Your task to perform on an android device: turn off data saver in the chrome app Image 0: 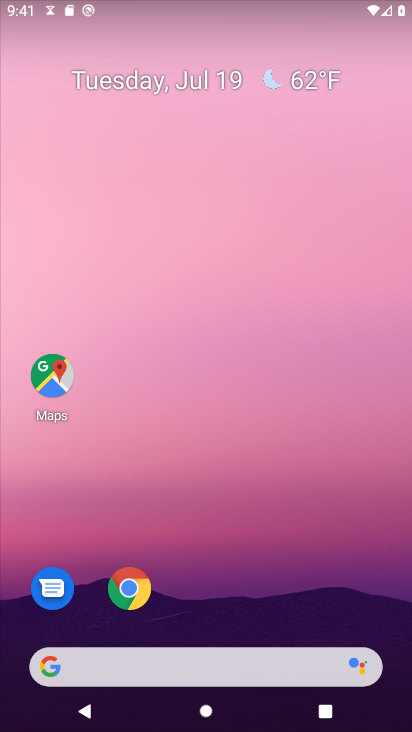
Step 0: click (117, 594)
Your task to perform on an android device: turn off data saver in the chrome app Image 1: 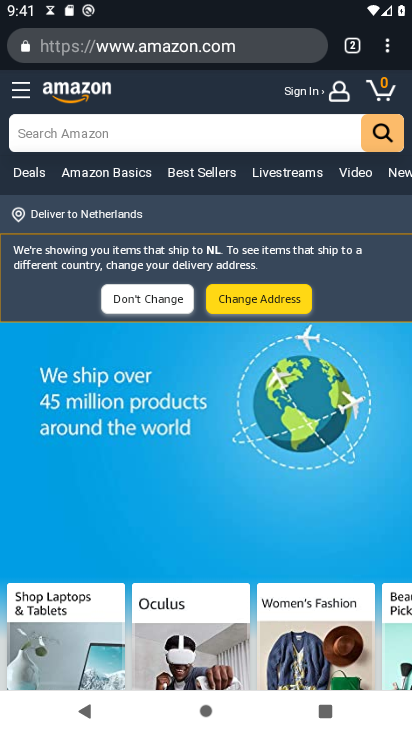
Step 1: click (386, 47)
Your task to perform on an android device: turn off data saver in the chrome app Image 2: 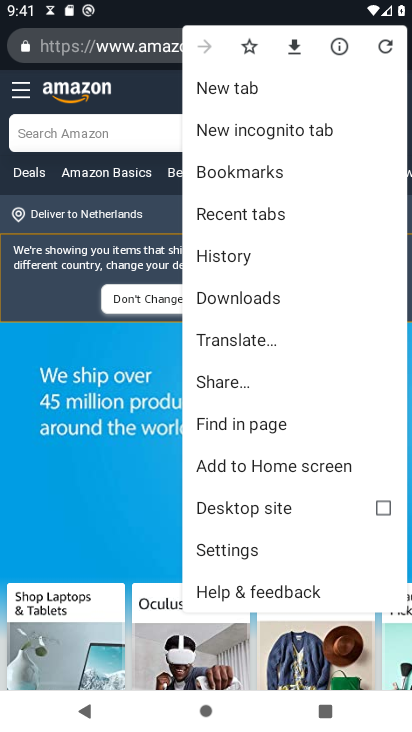
Step 2: click (228, 553)
Your task to perform on an android device: turn off data saver in the chrome app Image 3: 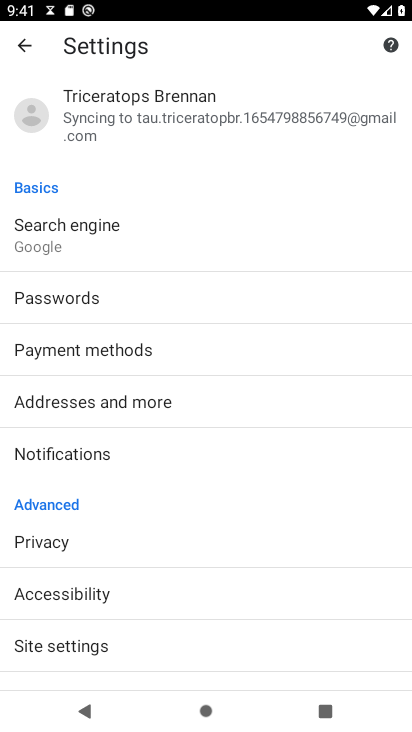
Step 3: drag from (128, 557) to (149, 360)
Your task to perform on an android device: turn off data saver in the chrome app Image 4: 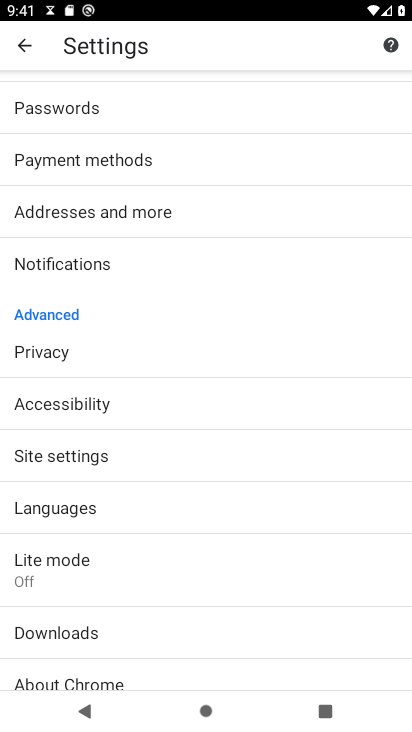
Step 4: drag from (105, 612) to (144, 415)
Your task to perform on an android device: turn off data saver in the chrome app Image 5: 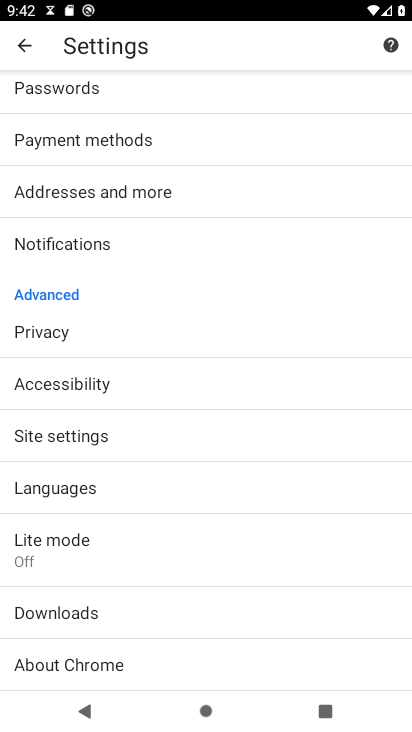
Step 5: click (107, 554)
Your task to perform on an android device: turn off data saver in the chrome app Image 6: 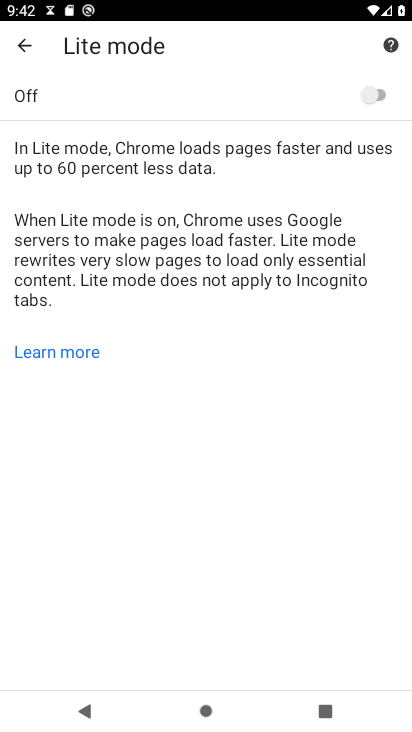
Step 6: task complete